Your task to perform on an android device: change your default location settings in chrome Image 0: 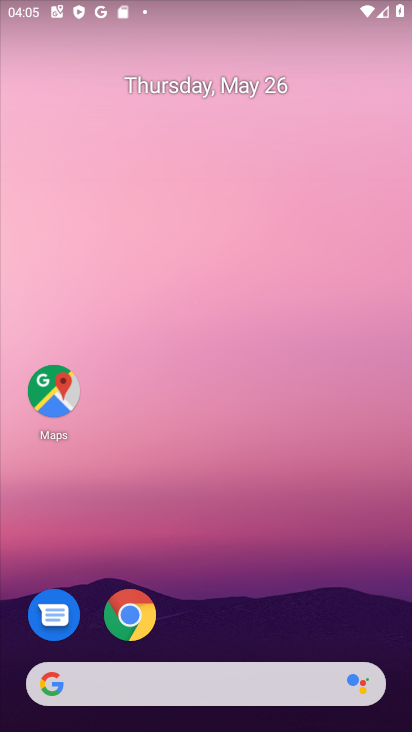
Step 0: click (134, 625)
Your task to perform on an android device: change your default location settings in chrome Image 1: 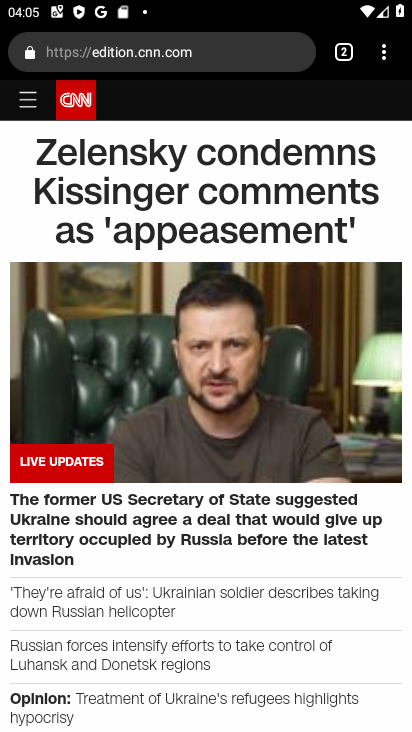
Step 1: click (386, 48)
Your task to perform on an android device: change your default location settings in chrome Image 2: 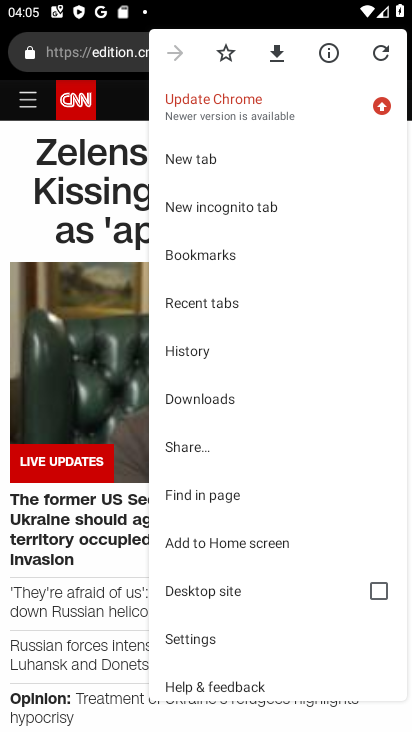
Step 2: click (386, 53)
Your task to perform on an android device: change your default location settings in chrome Image 3: 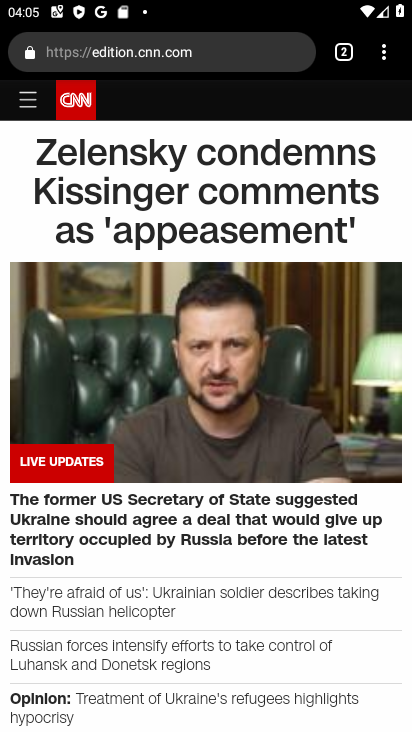
Step 3: click (385, 58)
Your task to perform on an android device: change your default location settings in chrome Image 4: 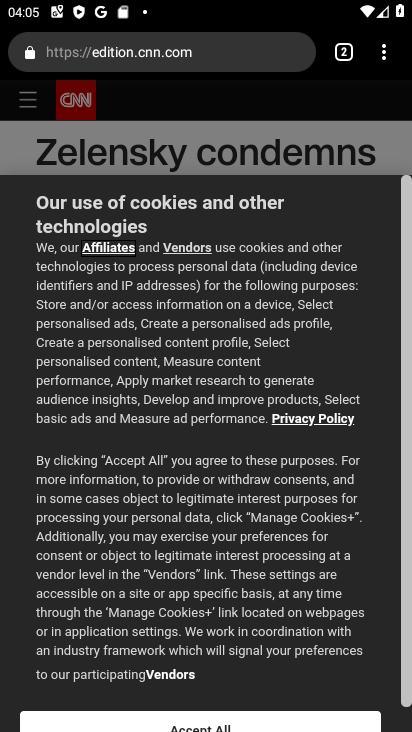
Step 4: click (384, 56)
Your task to perform on an android device: change your default location settings in chrome Image 5: 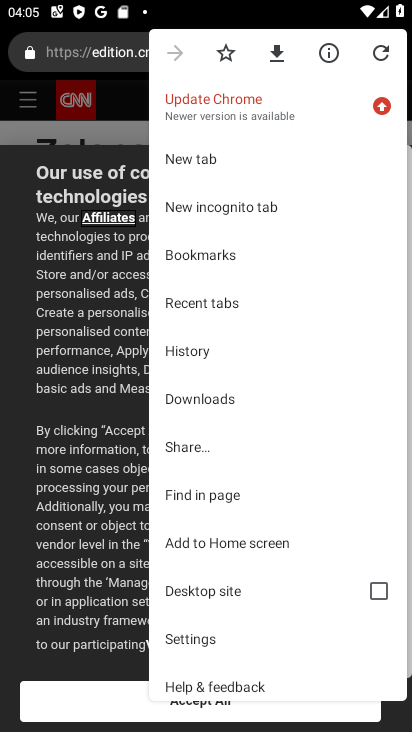
Step 5: click (182, 640)
Your task to perform on an android device: change your default location settings in chrome Image 6: 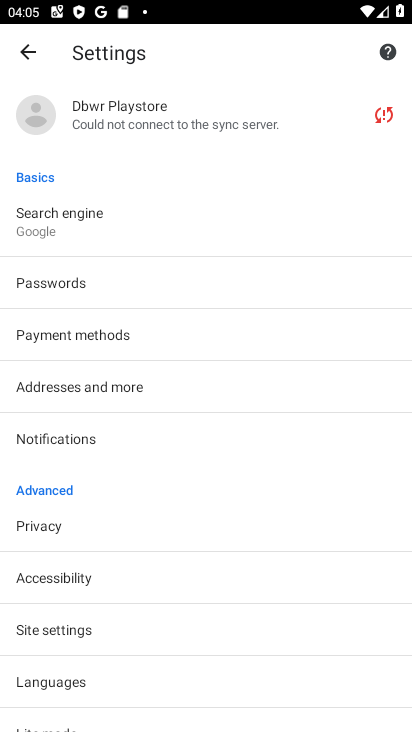
Step 6: click (69, 625)
Your task to perform on an android device: change your default location settings in chrome Image 7: 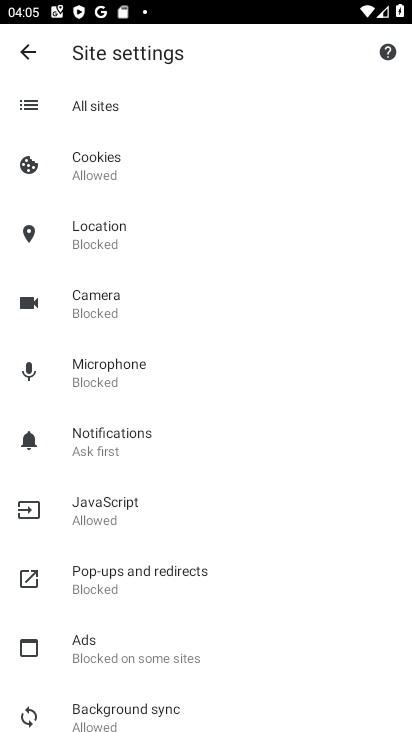
Step 7: click (106, 241)
Your task to perform on an android device: change your default location settings in chrome Image 8: 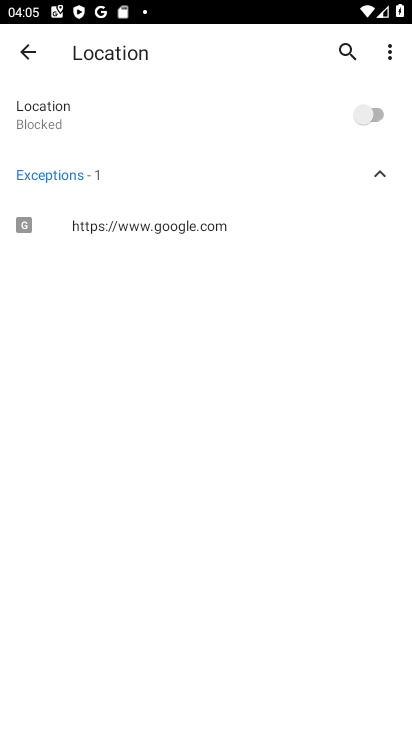
Step 8: click (383, 111)
Your task to perform on an android device: change your default location settings in chrome Image 9: 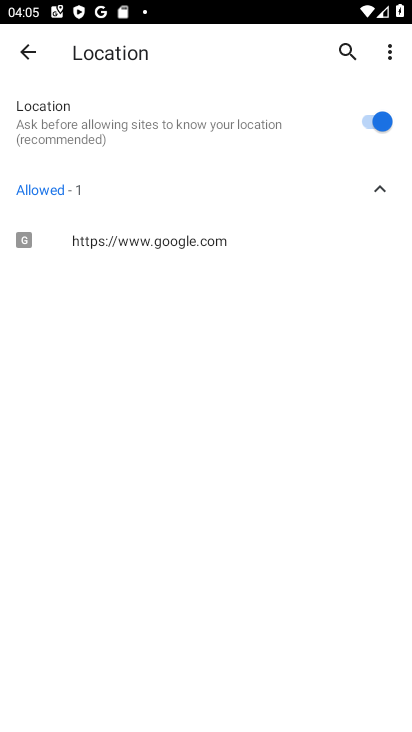
Step 9: task complete